Your task to perform on an android device: Open Amazon Image 0: 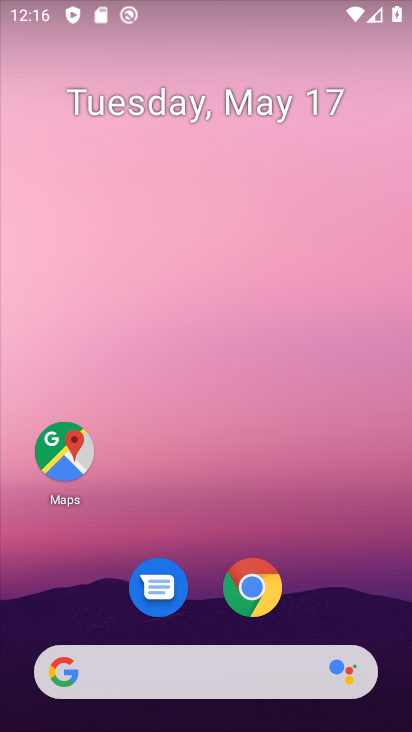
Step 0: drag from (233, 624) to (292, 7)
Your task to perform on an android device: Open Amazon Image 1: 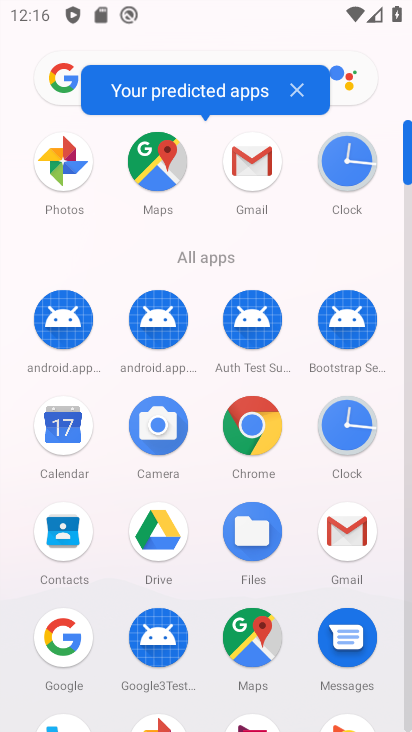
Step 1: click (276, 425)
Your task to perform on an android device: Open Amazon Image 2: 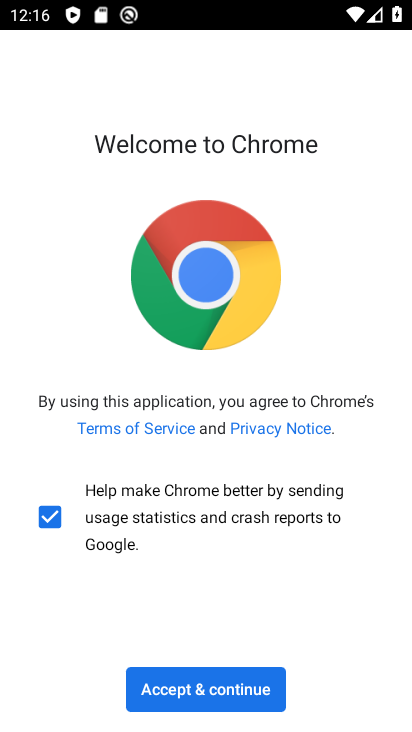
Step 2: click (265, 694)
Your task to perform on an android device: Open Amazon Image 3: 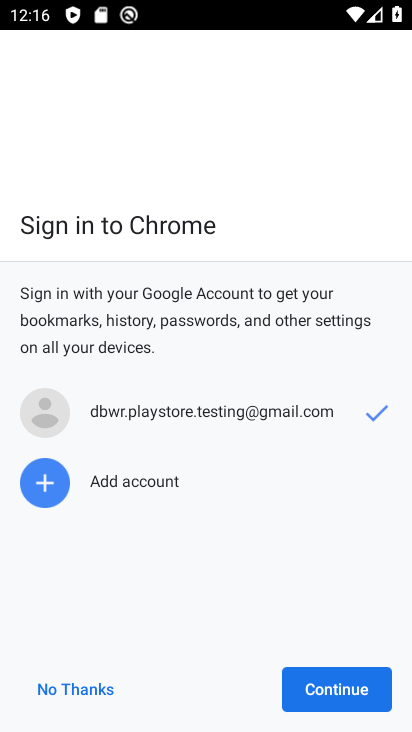
Step 3: click (302, 705)
Your task to perform on an android device: Open Amazon Image 4: 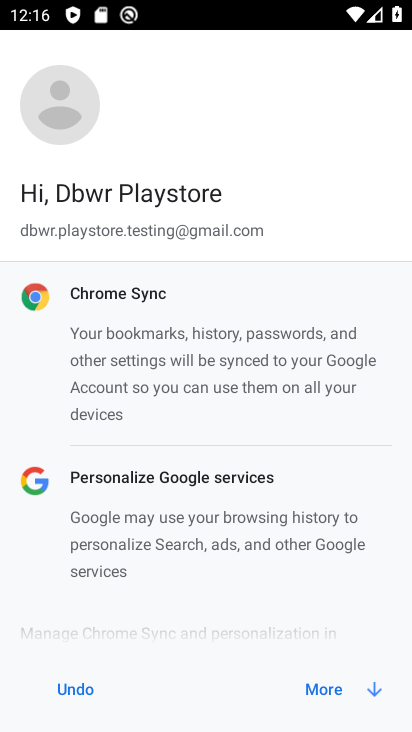
Step 4: click (345, 685)
Your task to perform on an android device: Open Amazon Image 5: 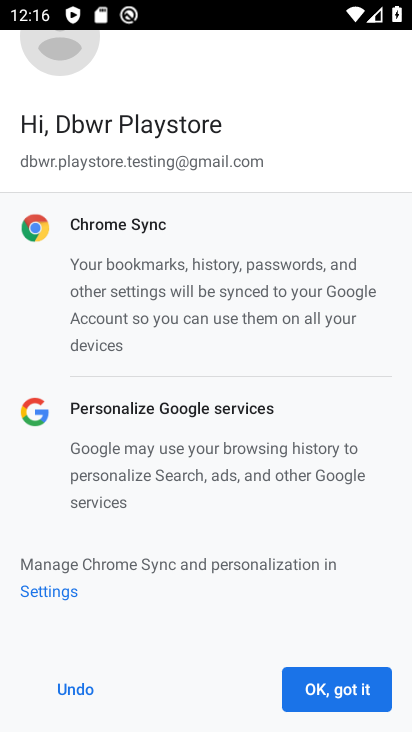
Step 5: click (345, 685)
Your task to perform on an android device: Open Amazon Image 6: 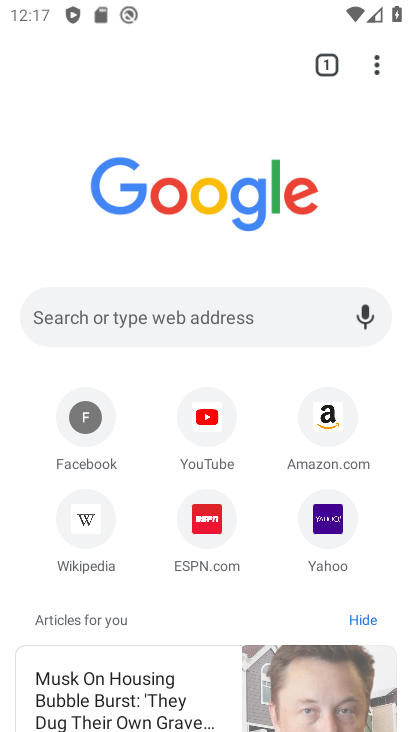
Step 6: click (345, 406)
Your task to perform on an android device: Open Amazon Image 7: 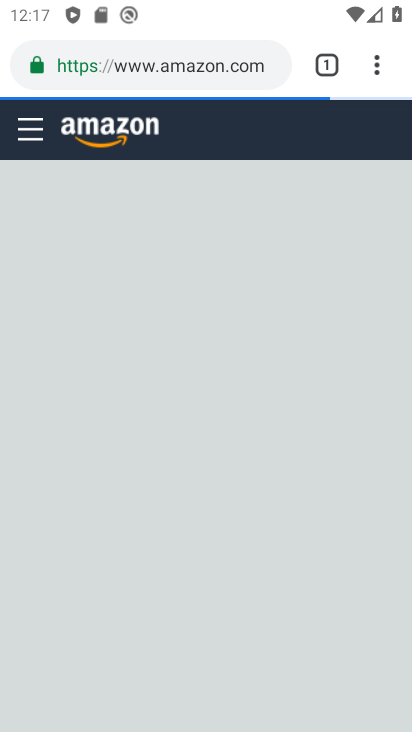
Step 7: task complete